Your task to perform on an android device: Go to Amazon Image 0: 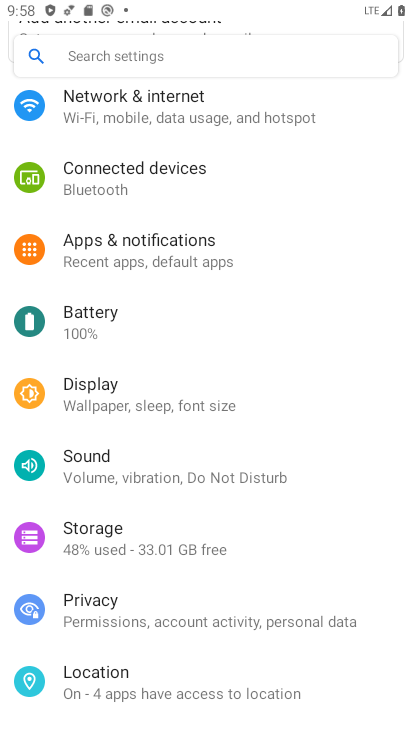
Step 0: press home button
Your task to perform on an android device: Go to Amazon Image 1: 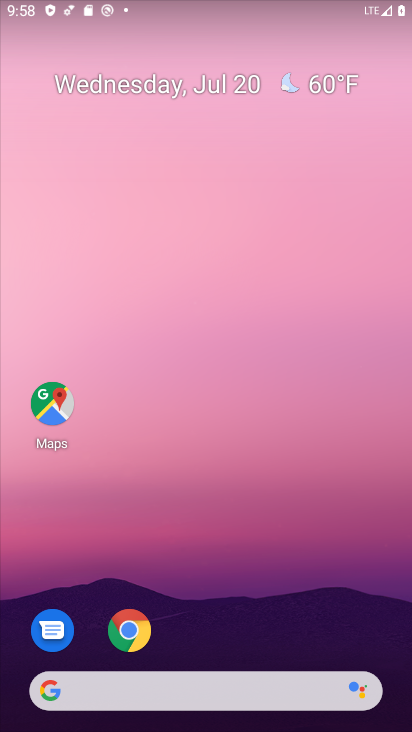
Step 1: click (123, 642)
Your task to perform on an android device: Go to Amazon Image 2: 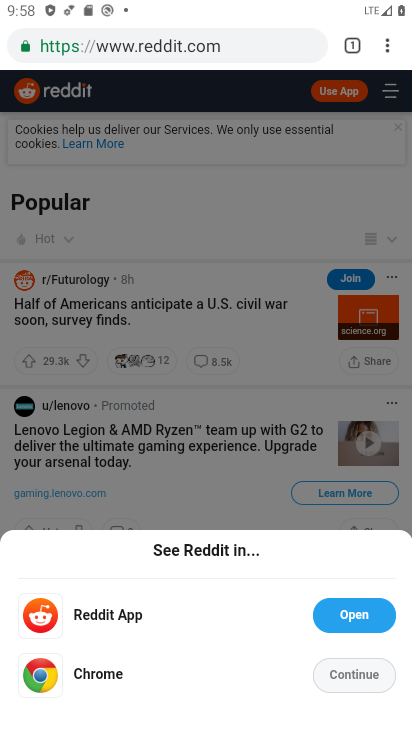
Step 2: click (165, 40)
Your task to perform on an android device: Go to Amazon Image 3: 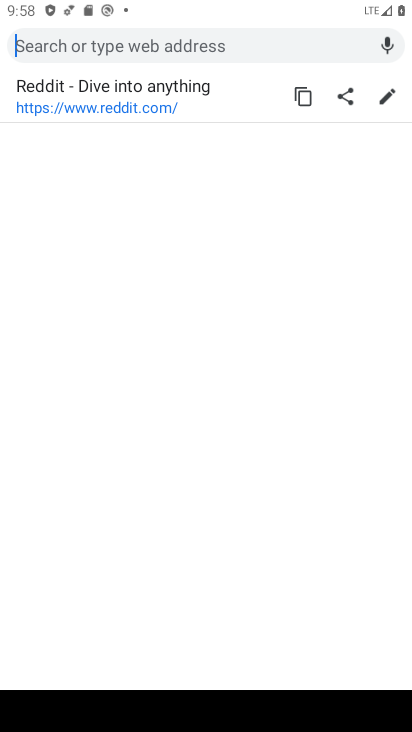
Step 3: type "amazon"
Your task to perform on an android device: Go to Amazon Image 4: 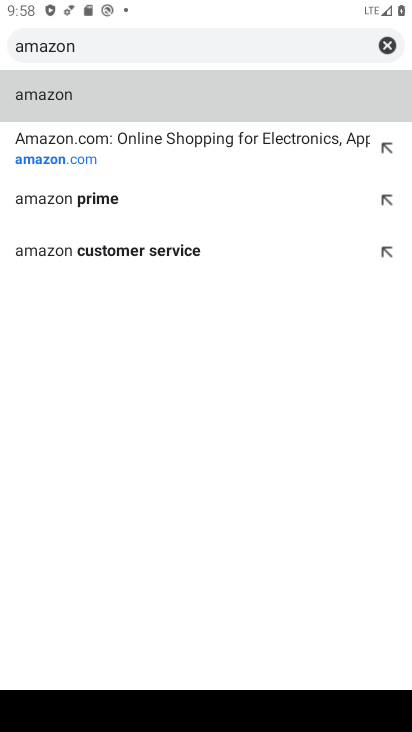
Step 4: click (91, 106)
Your task to perform on an android device: Go to Amazon Image 5: 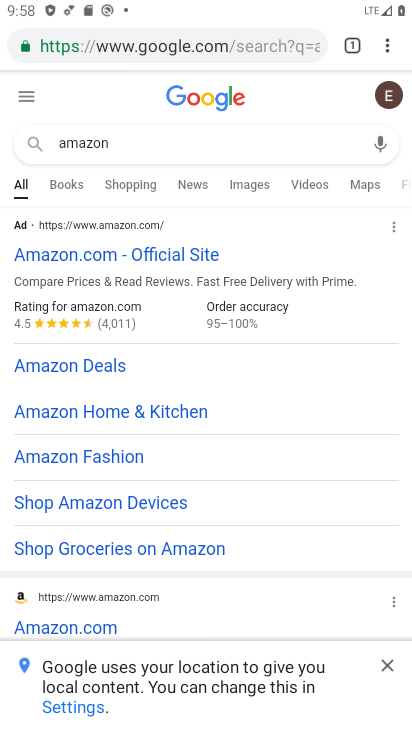
Step 5: click (69, 254)
Your task to perform on an android device: Go to Amazon Image 6: 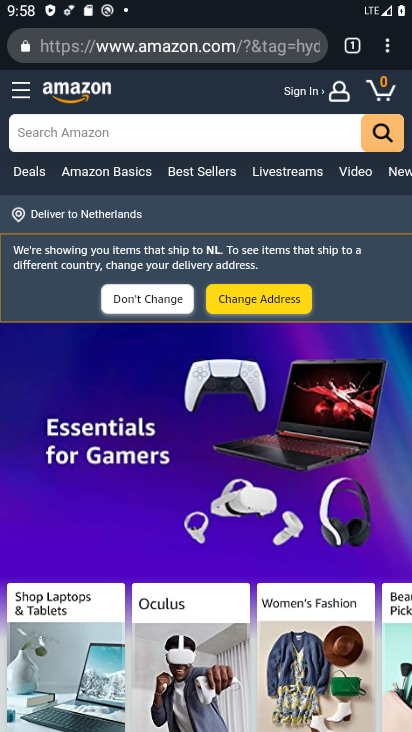
Step 6: task complete